Your task to perform on an android device: Open display settings Image 0: 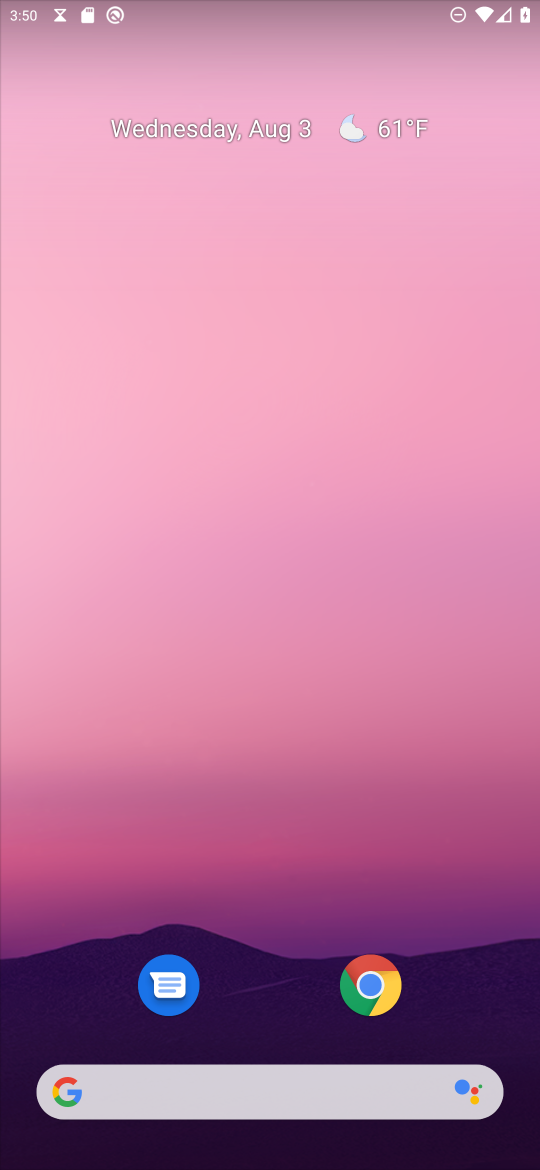
Step 0: drag from (292, 959) to (285, 90)
Your task to perform on an android device: Open display settings Image 1: 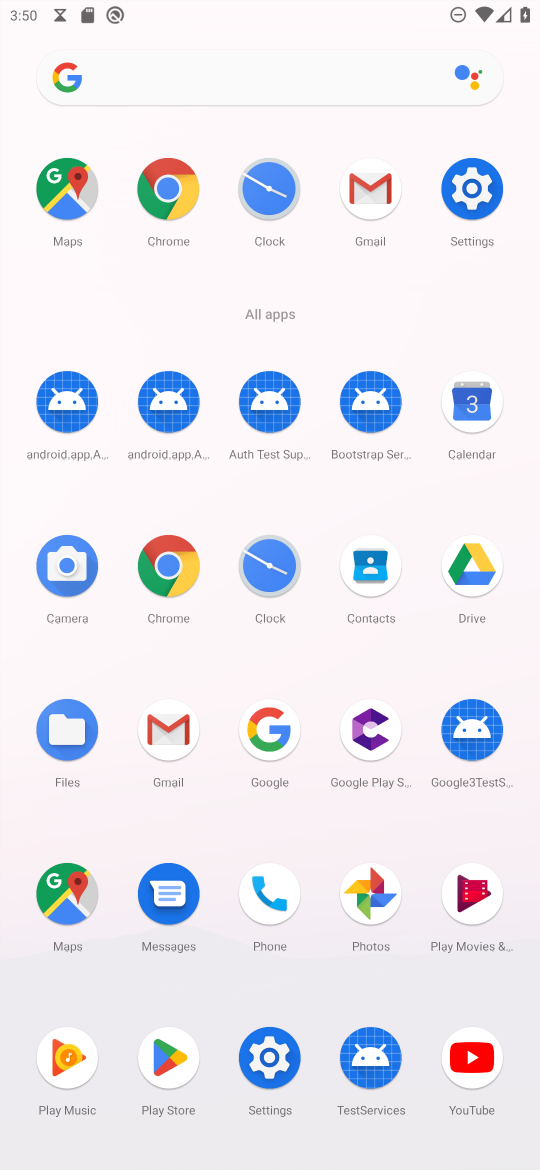
Step 1: click (465, 194)
Your task to perform on an android device: Open display settings Image 2: 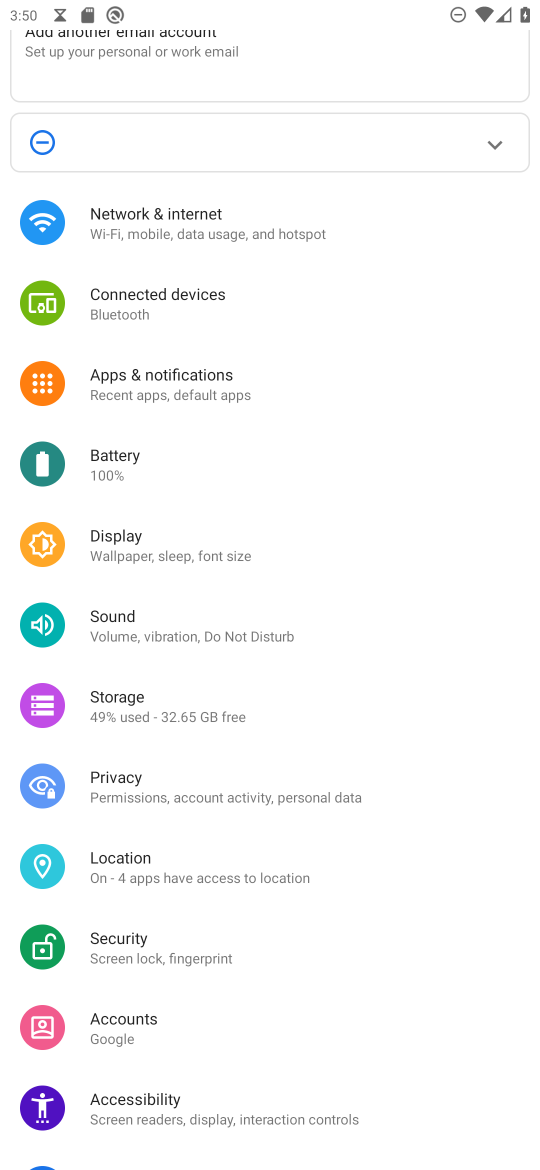
Step 2: click (155, 541)
Your task to perform on an android device: Open display settings Image 3: 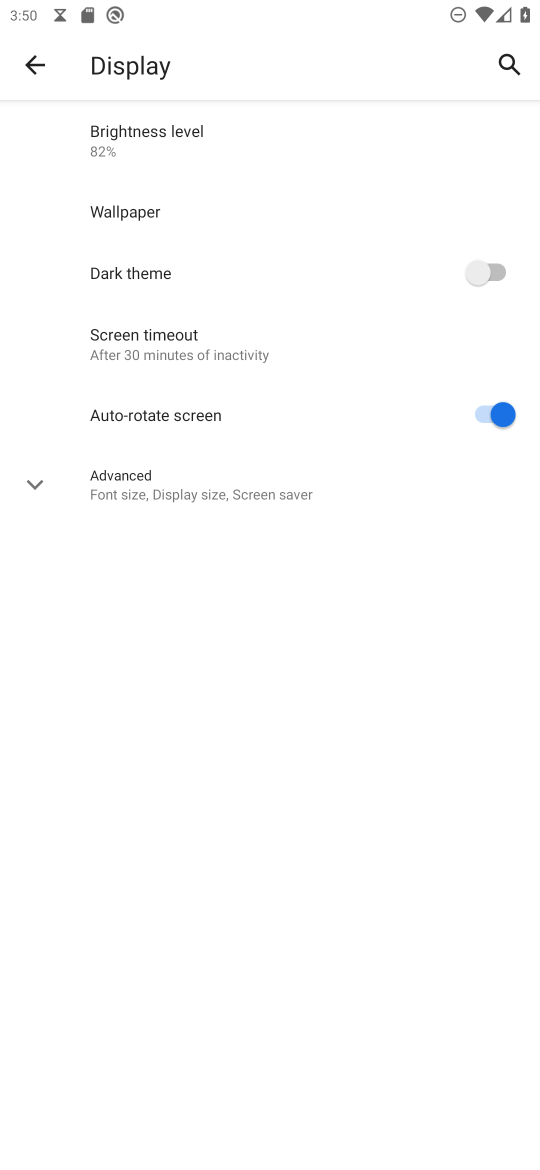
Step 3: task complete